Your task to perform on an android device: open a bookmark in the chrome app Image 0: 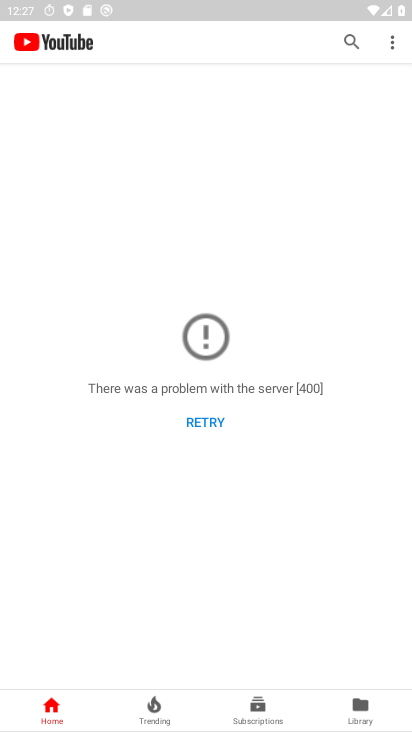
Step 0: press home button
Your task to perform on an android device: open a bookmark in the chrome app Image 1: 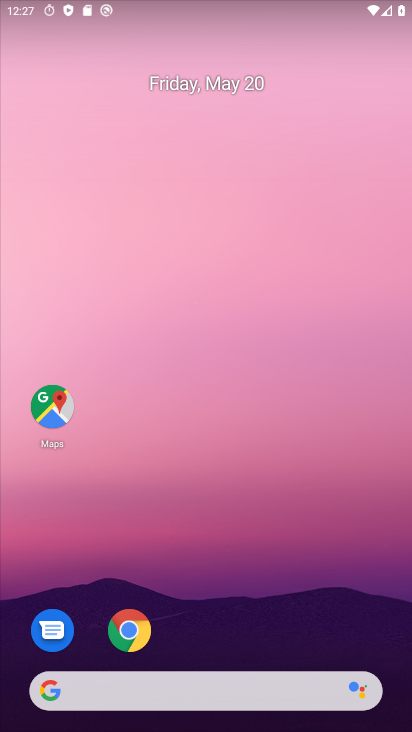
Step 1: click (133, 629)
Your task to perform on an android device: open a bookmark in the chrome app Image 2: 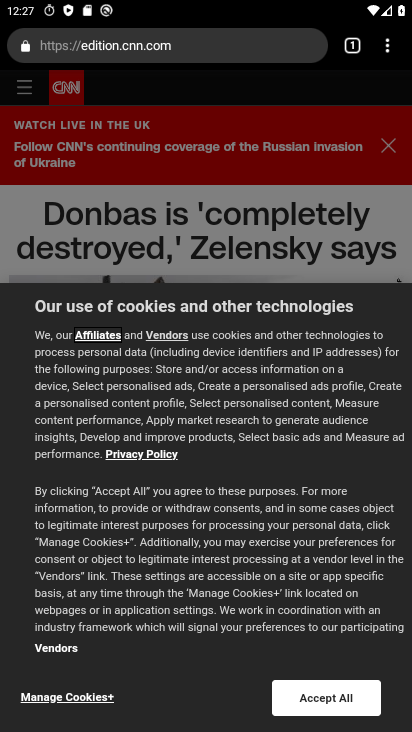
Step 2: click (388, 49)
Your task to perform on an android device: open a bookmark in the chrome app Image 3: 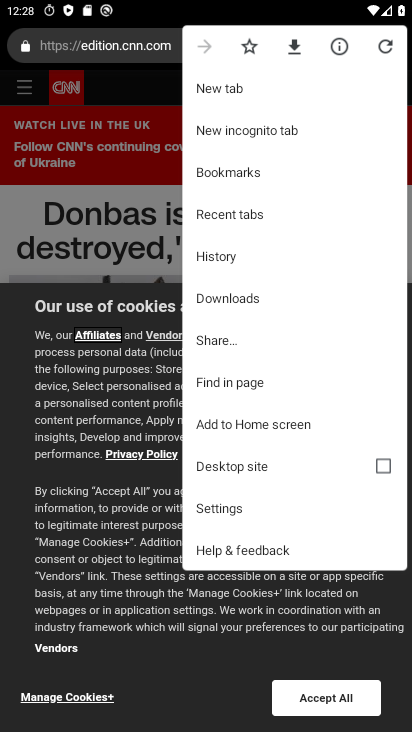
Step 3: click (235, 171)
Your task to perform on an android device: open a bookmark in the chrome app Image 4: 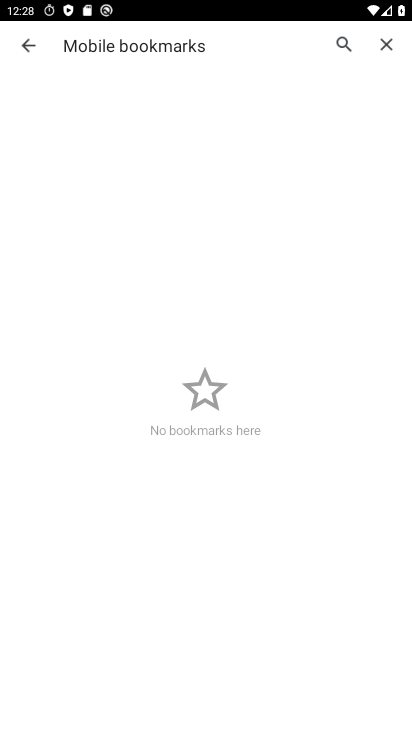
Step 4: task complete